Your task to perform on an android device: Search for "lenovo thinkpad" on bestbuy.com, select the first entry, add it to the cart, then select checkout. Image 0: 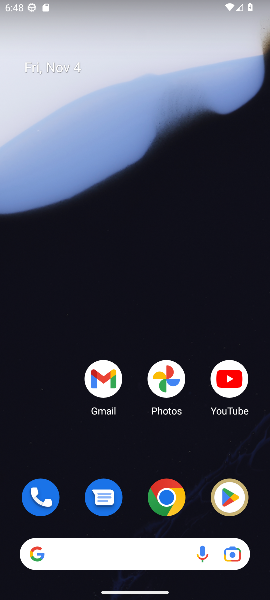
Step 0: click (174, 501)
Your task to perform on an android device: Search for "lenovo thinkpad" on bestbuy.com, select the first entry, add it to the cart, then select checkout. Image 1: 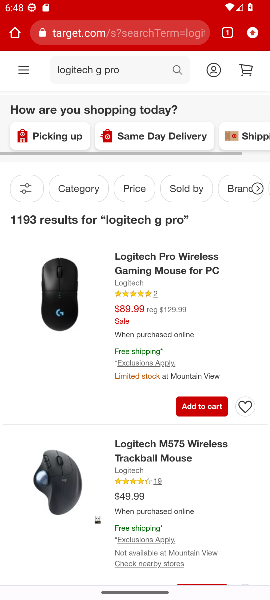
Step 1: click (121, 35)
Your task to perform on an android device: Search for "lenovo thinkpad" on bestbuy.com, select the first entry, add it to the cart, then select checkout. Image 2: 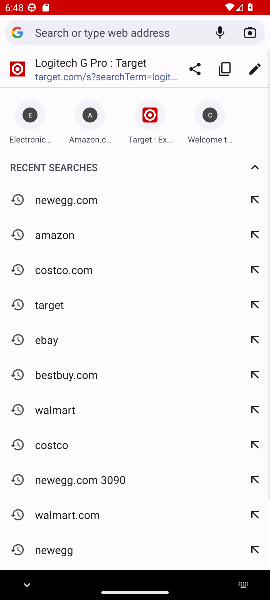
Step 2: click (52, 376)
Your task to perform on an android device: Search for "lenovo thinkpad" on bestbuy.com, select the first entry, add it to the cart, then select checkout. Image 3: 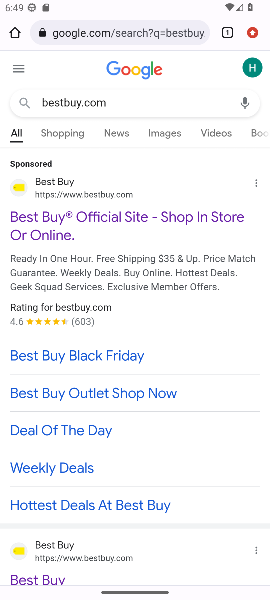
Step 3: drag from (133, 461) to (130, 294)
Your task to perform on an android device: Search for "lenovo thinkpad" on bestbuy.com, select the first entry, add it to the cart, then select checkout. Image 4: 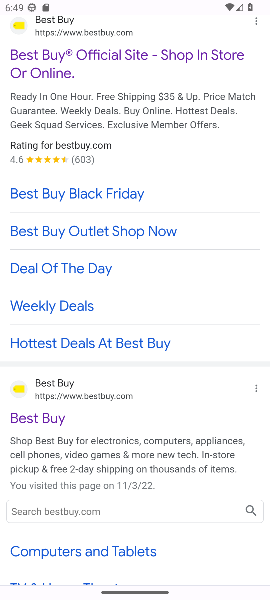
Step 4: click (45, 416)
Your task to perform on an android device: Search for "lenovo thinkpad" on bestbuy.com, select the first entry, add it to the cart, then select checkout. Image 5: 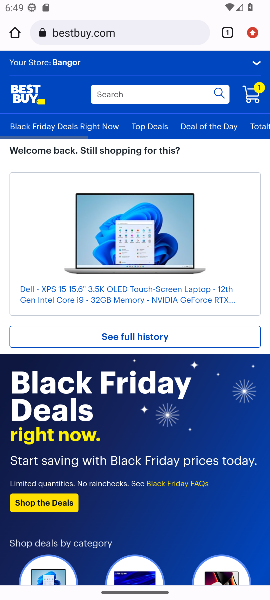
Step 5: click (139, 92)
Your task to perform on an android device: Search for "lenovo thinkpad" on bestbuy.com, select the first entry, add it to the cart, then select checkout. Image 6: 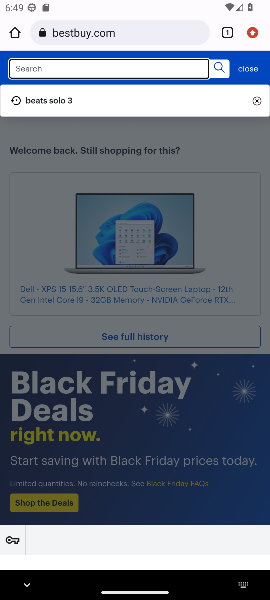
Step 6: type "lenovo thinkpad"
Your task to perform on an android device: Search for "lenovo thinkpad" on bestbuy.com, select the first entry, add it to the cart, then select checkout. Image 7: 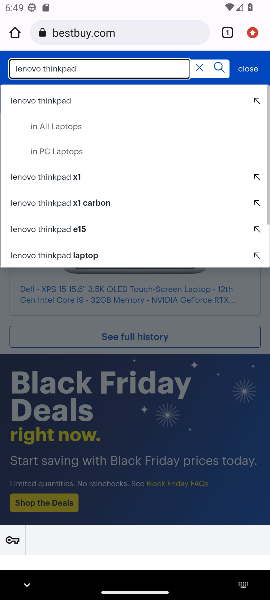
Step 7: click (59, 105)
Your task to perform on an android device: Search for "lenovo thinkpad" on bestbuy.com, select the first entry, add it to the cart, then select checkout. Image 8: 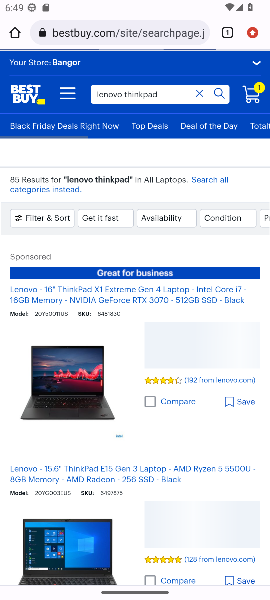
Step 8: click (119, 366)
Your task to perform on an android device: Search for "lenovo thinkpad" on bestbuy.com, select the first entry, add it to the cart, then select checkout. Image 9: 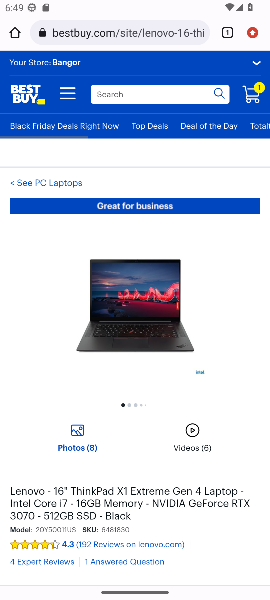
Step 9: drag from (139, 476) to (151, 188)
Your task to perform on an android device: Search for "lenovo thinkpad" on bestbuy.com, select the first entry, add it to the cart, then select checkout. Image 10: 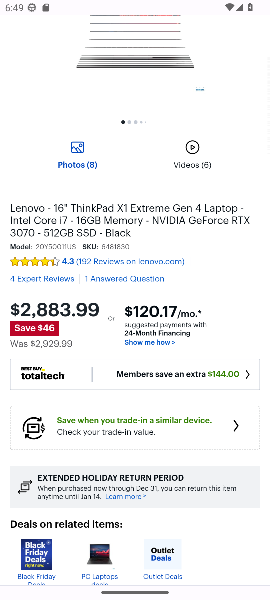
Step 10: drag from (139, 419) to (163, 174)
Your task to perform on an android device: Search for "lenovo thinkpad" on bestbuy.com, select the first entry, add it to the cart, then select checkout. Image 11: 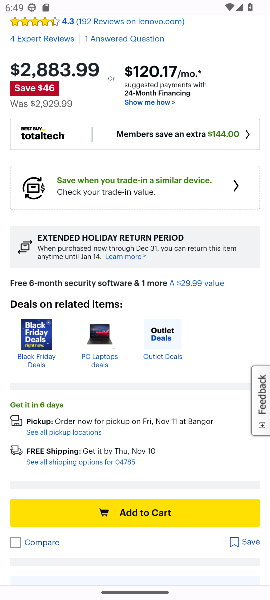
Step 11: click (147, 517)
Your task to perform on an android device: Search for "lenovo thinkpad" on bestbuy.com, select the first entry, add it to the cart, then select checkout. Image 12: 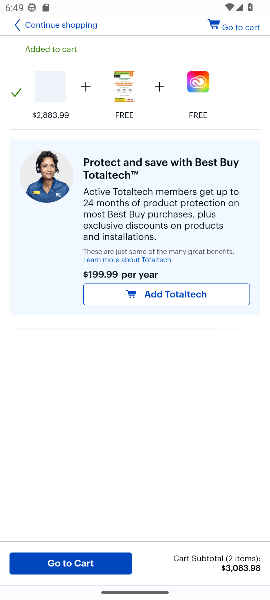
Step 12: click (244, 28)
Your task to perform on an android device: Search for "lenovo thinkpad" on bestbuy.com, select the first entry, add it to the cart, then select checkout. Image 13: 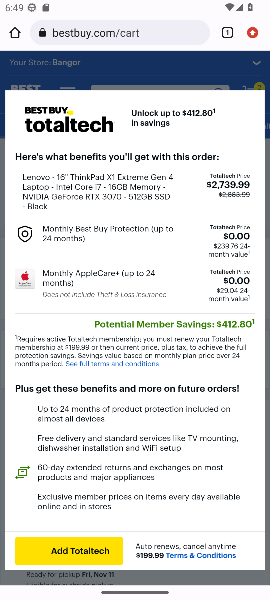
Step 13: click (136, 295)
Your task to perform on an android device: Search for "lenovo thinkpad" on bestbuy.com, select the first entry, add it to the cart, then select checkout. Image 14: 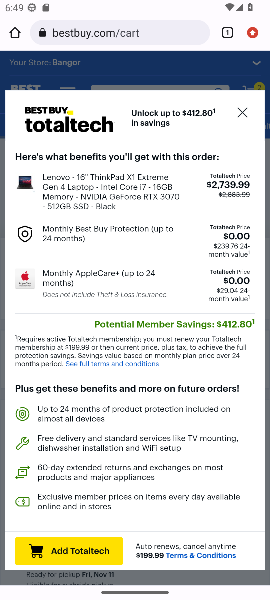
Step 14: click (244, 102)
Your task to perform on an android device: Search for "lenovo thinkpad" on bestbuy.com, select the first entry, add it to the cart, then select checkout. Image 15: 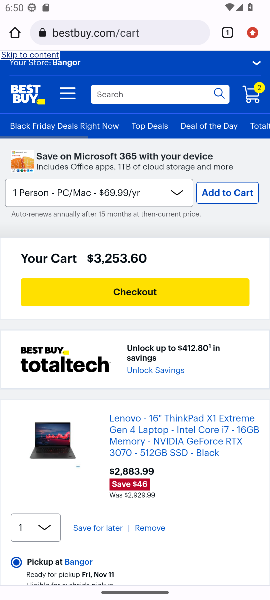
Step 15: click (155, 298)
Your task to perform on an android device: Search for "lenovo thinkpad" on bestbuy.com, select the first entry, add it to the cart, then select checkout. Image 16: 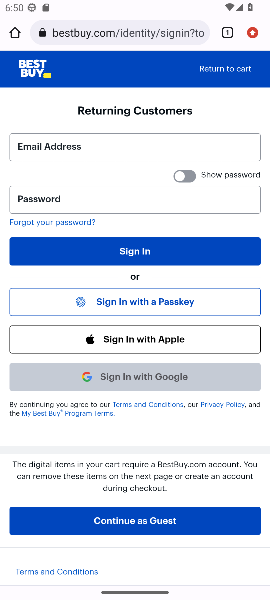
Step 16: task complete